Your task to perform on an android device: see sites visited before in the chrome app Image 0: 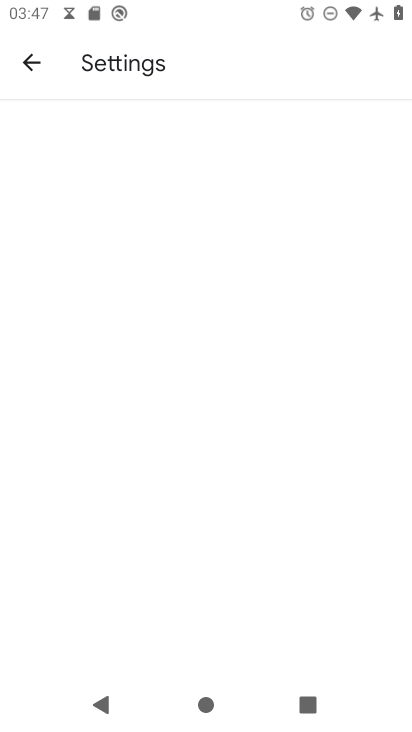
Step 0: press home button
Your task to perform on an android device: see sites visited before in the chrome app Image 1: 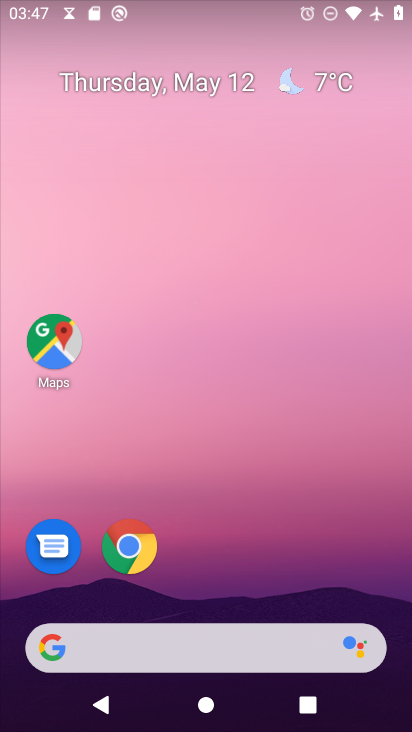
Step 1: drag from (187, 652) to (288, 205)
Your task to perform on an android device: see sites visited before in the chrome app Image 2: 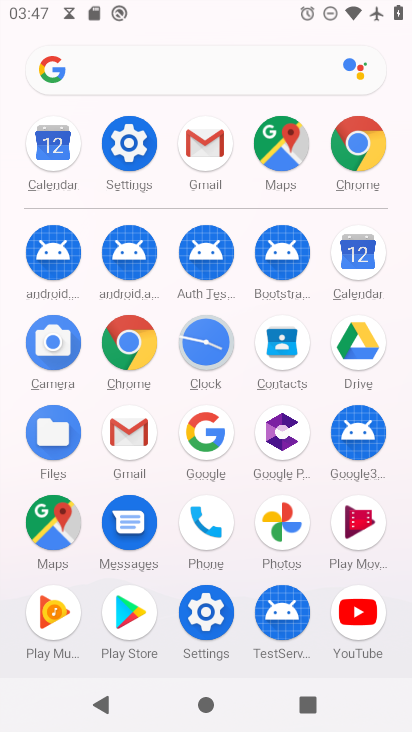
Step 2: click (363, 155)
Your task to perform on an android device: see sites visited before in the chrome app Image 3: 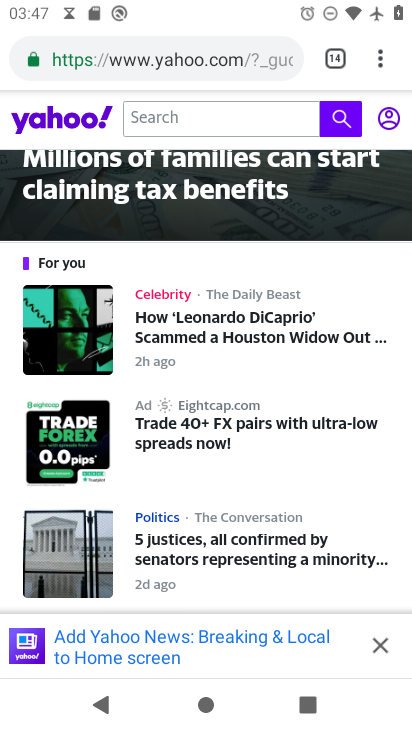
Step 3: task complete